Your task to perform on an android device: turn off data saver in the chrome app Image 0: 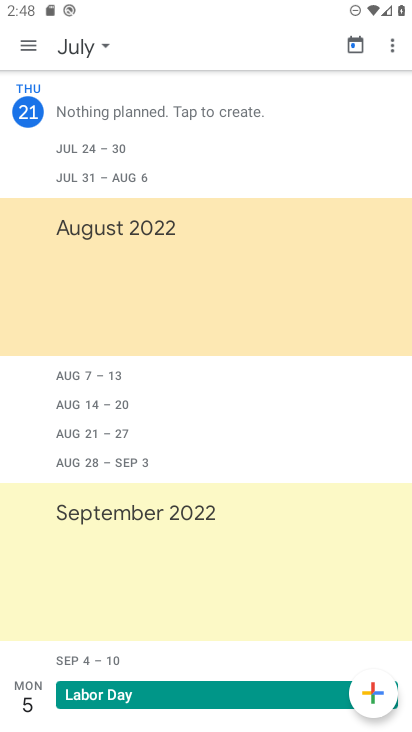
Step 0: press back button
Your task to perform on an android device: turn off data saver in the chrome app Image 1: 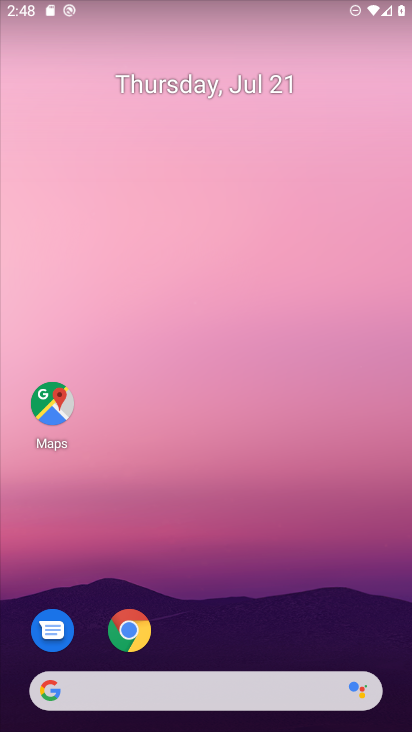
Step 1: click (126, 632)
Your task to perform on an android device: turn off data saver in the chrome app Image 2: 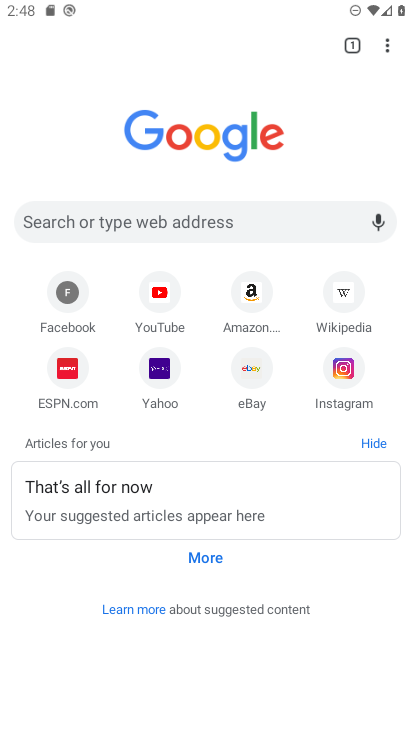
Step 2: drag from (384, 44) to (210, 374)
Your task to perform on an android device: turn off data saver in the chrome app Image 3: 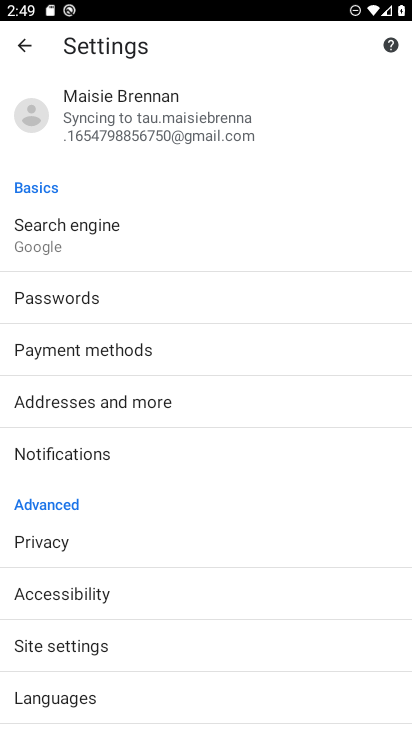
Step 3: drag from (91, 639) to (145, 106)
Your task to perform on an android device: turn off data saver in the chrome app Image 4: 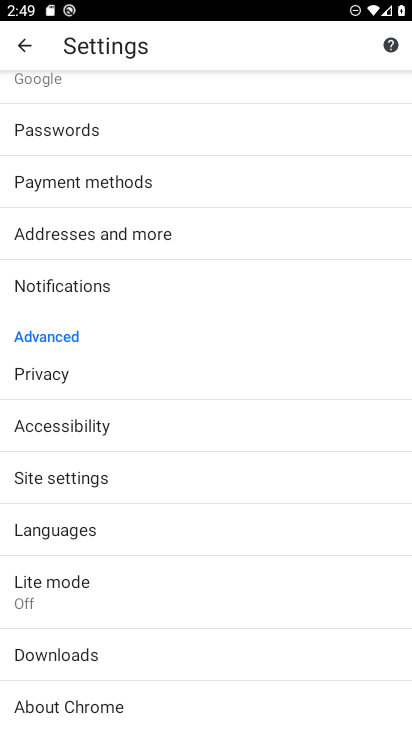
Step 4: click (71, 585)
Your task to perform on an android device: turn off data saver in the chrome app Image 5: 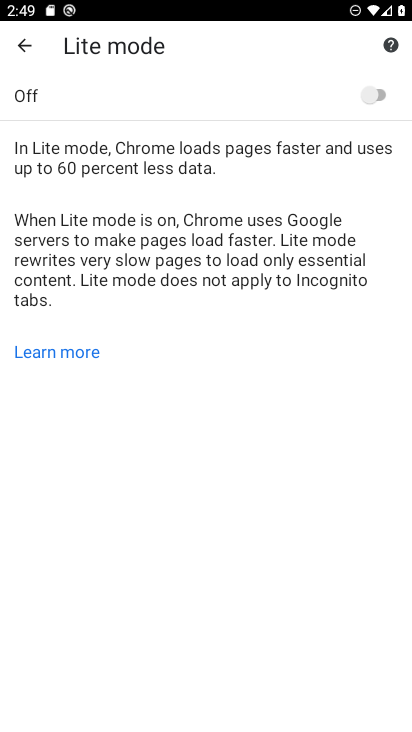
Step 5: task complete